Your task to perform on an android device: Search for jbl charge 4 on target.com, select the first entry, add it to the cart, then select checkout. Image 0: 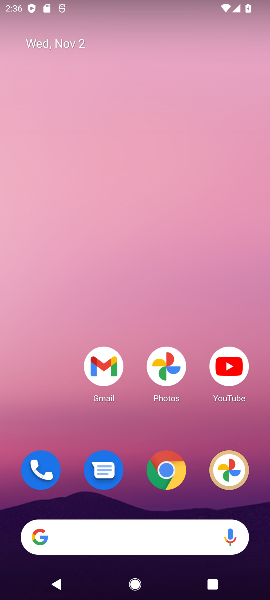
Step 0: drag from (139, 506) to (153, 115)
Your task to perform on an android device: Search for jbl charge 4 on target.com, select the first entry, add it to the cart, then select checkout. Image 1: 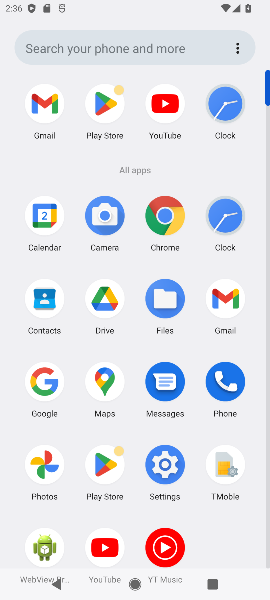
Step 1: click (40, 375)
Your task to perform on an android device: Search for jbl charge 4 on target.com, select the first entry, add it to the cart, then select checkout. Image 2: 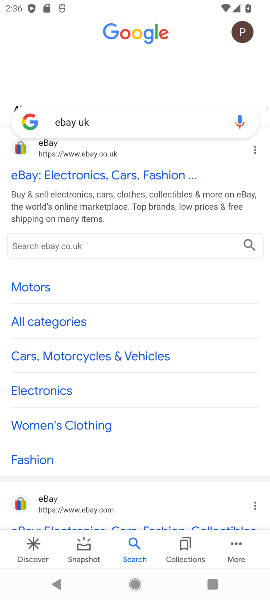
Step 2: click (108, 115)
Your task to perform on an android device: Search for jbl charge 4 on target.com, select the first entry, add it to the cart, then select checkout. Image 3: 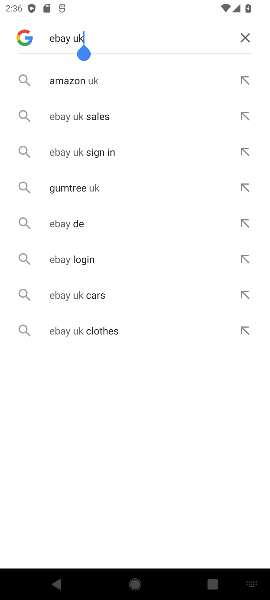
Step 3: click (248, 33)
Your task to perform on an android device: Search for jbl charge 4 on target.com, select the first entry, add it to the cart, then select checkout. Image 4: 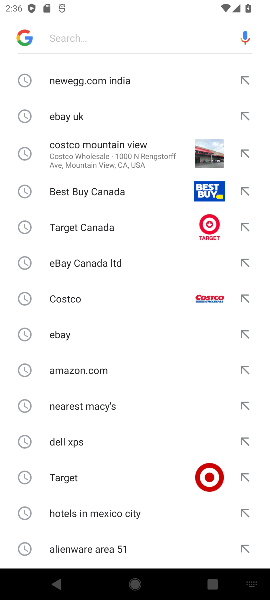
Step 4: click (68, 483)
Your task to perform on an android device: Search for jbl charge 4 on target.com, select the first entry, add it to the cart, then select checkout. Image 5: 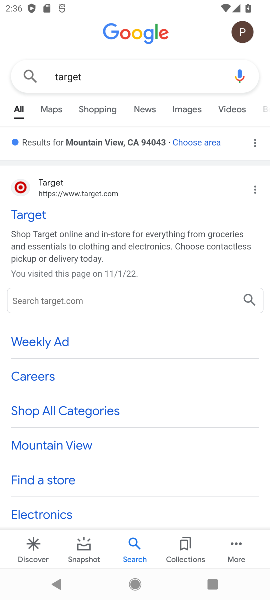
Step 5: click (16, 185)
Your task to perform on an android device: Search for jbl charge 4 on target.com, select the first entry, add it to the cart, then select checkout. Image 6: 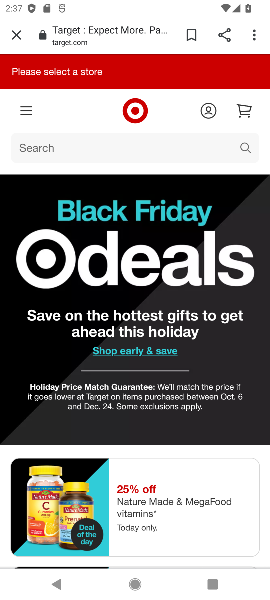
Step 6: click (142, 140)
Your task to perform on an android device: Search for jbl charge 4 on target.com, select the first entry, add it to the cart, then select checkout. Image 7: 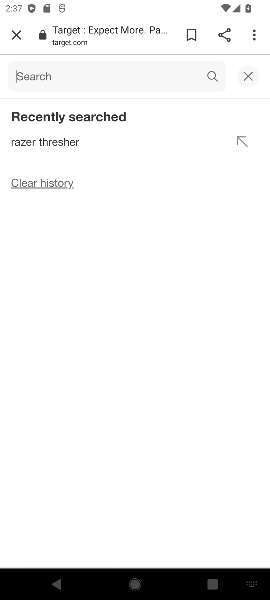
Step 7: click (97, 67)
Your task to perform on an android device: Search for jbl charge 4 on target.com, select the first entry, add it to the cart, then select checkout. Image 8: 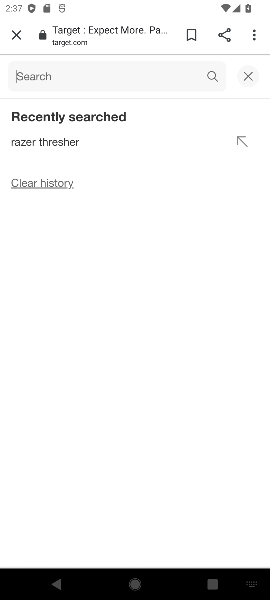
Step 8: type " jbl charge 4 "
Your task to perform on an android device: Search for jbl charge 4 on target.com, select the first entry, add it to the cart, then select checkout. Image 9: 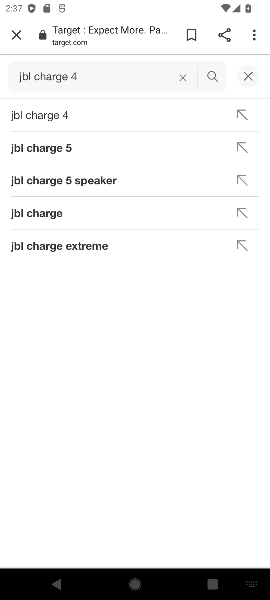
Step 9: click (79, 110)
Your task to perform on an android device: Search for jbl charge 4 on target.com, select the first entry, add it to the cart, then select checkout. Image 10: 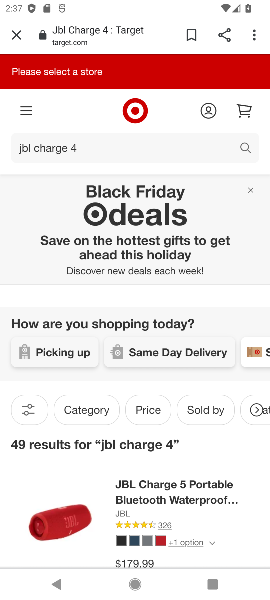
Step 10: click (245, 148)
Your task to perform on an android device: Search for jbl charge 4 on target.com, select the first entry, add it to the cart, then select checkout. Image 11: 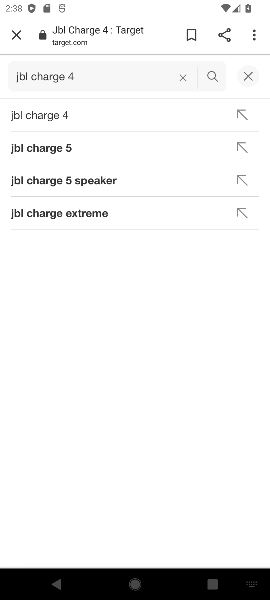
Step 11: click (237, 114)
Your task to perform on an android device: Search for jbl charge 4 on target.com, select the first entry, add it to the cart, then select checkout. Image 12: 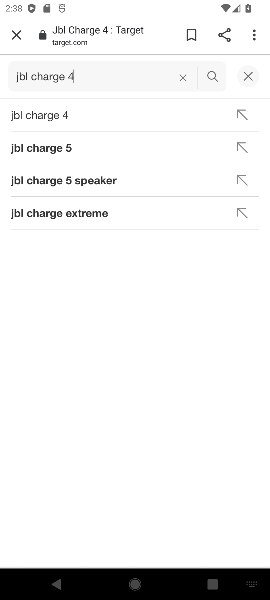
Step 12: click (34, 115)
Your task to perform on an android device: Search for jbl charge 4 on target.com, select the first entry, add it to the cart, then select checkout. Image 13: 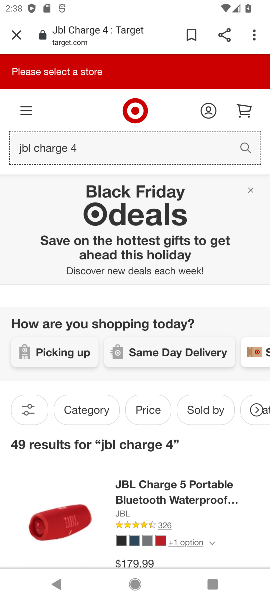
Step 13: drag from (179, 534) to (189, 191)
Your task to perform on an android device: Search for jbl charge 4 on target.com, select the first entry, add it to the cart, then select checkout. Image 14: 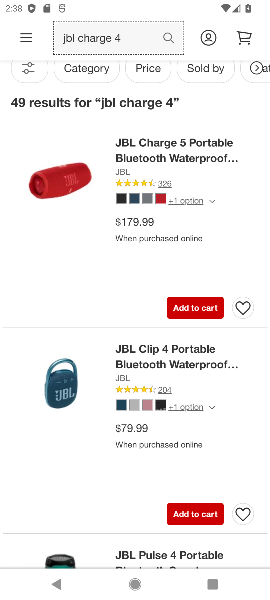
Step 14: click (188, 304)
Your task to perform on an android device: Search for jbl charge 4 on target.com, select the first entry, add it to the cart, then select checkout. Image 15: 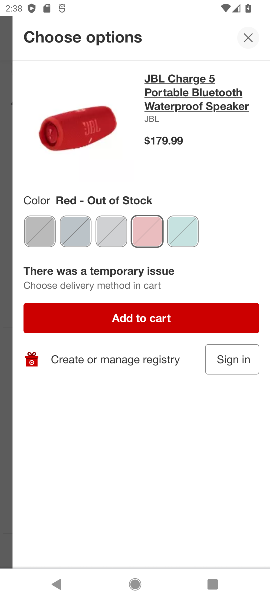
Step 15: click (128, 324)
Your task to perform on an android device: Search for jbl charge 4 on target.com, select the first entry, add it to the cart, then select checkout. Image 16: 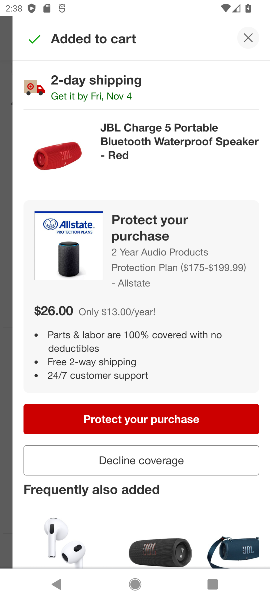
Step 16: task complete